Your task to perform on an android device: Open notification settings Image 0: 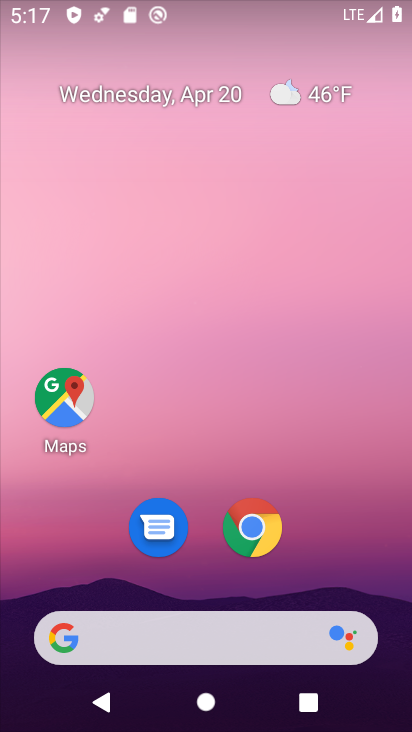
Step 0: drag from (216, 581) to (198, 46)
Your task to perform on an android device: Open notification settings Image 1: 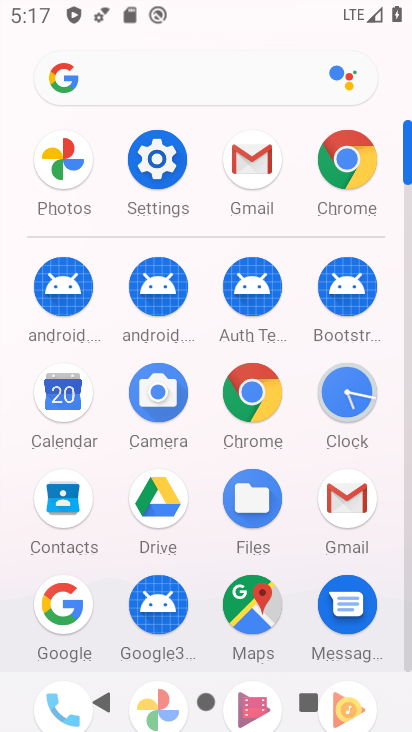
Step 1: click (157, 159)
Your task to perform on an android device: Open notification settings Image 2: 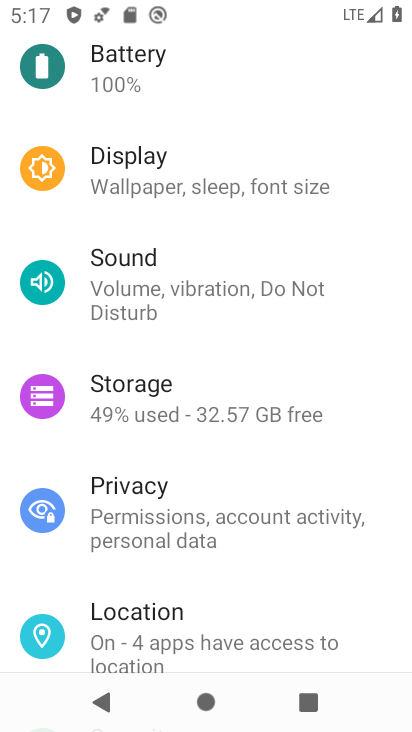
Step 2: drag from (220, 131) to (238, 493)
Your task to perform on an android device: Open notification settings Image 3: 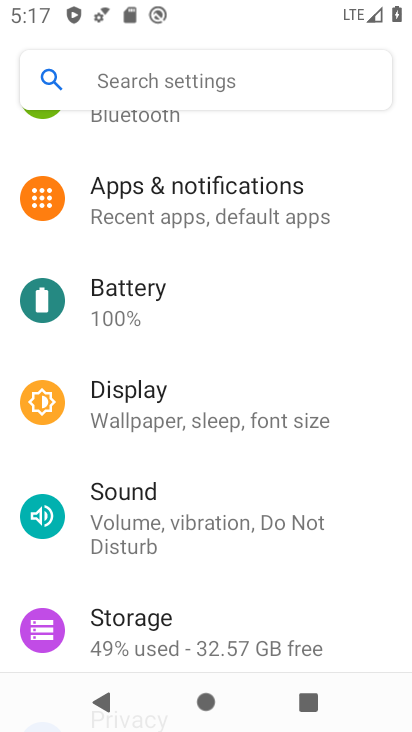
Step 3: click (201, 215)
Your task to perform on an android device: Open notification settings Image 4: 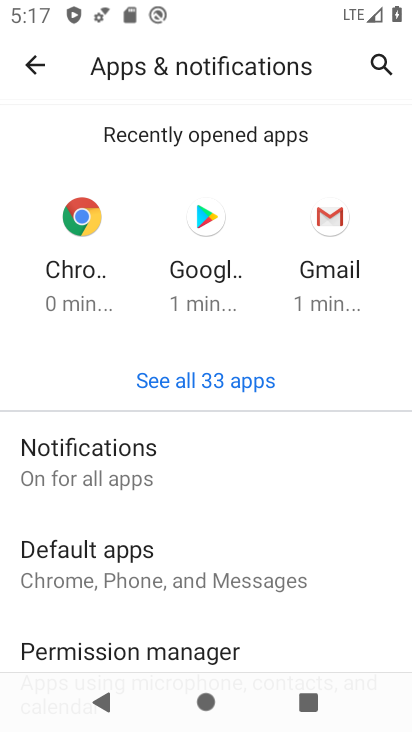
Step 4: click (165, 447)
Your task to perform on an android device: Open notification settings Image 5: 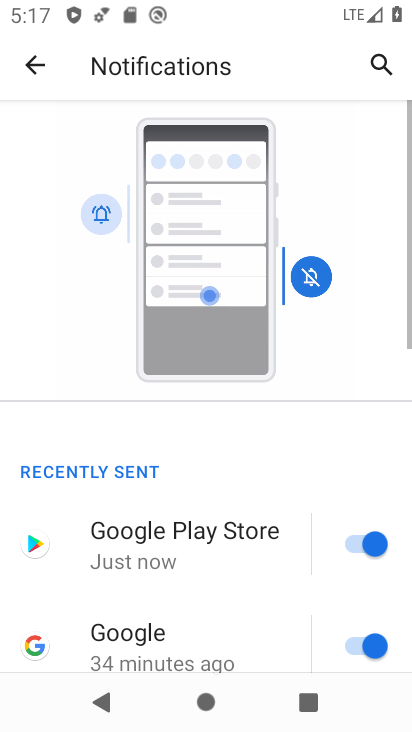
Step 5: task complete